Your task to perform on an android device: open app "Indeed Job Search" (install if not already installed), go to login, and select forgot password Image 0: 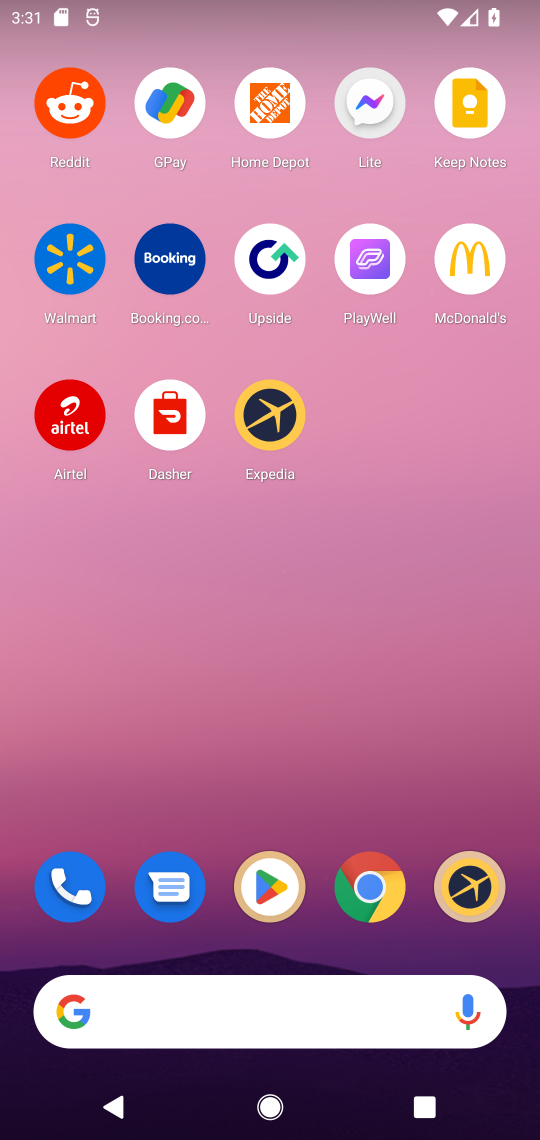
Step 0: click (268, 898)
Your task to perform on an android device: open app "Indeed Job Search" (install if not already installed), go to login, and select forgot password Image 1: 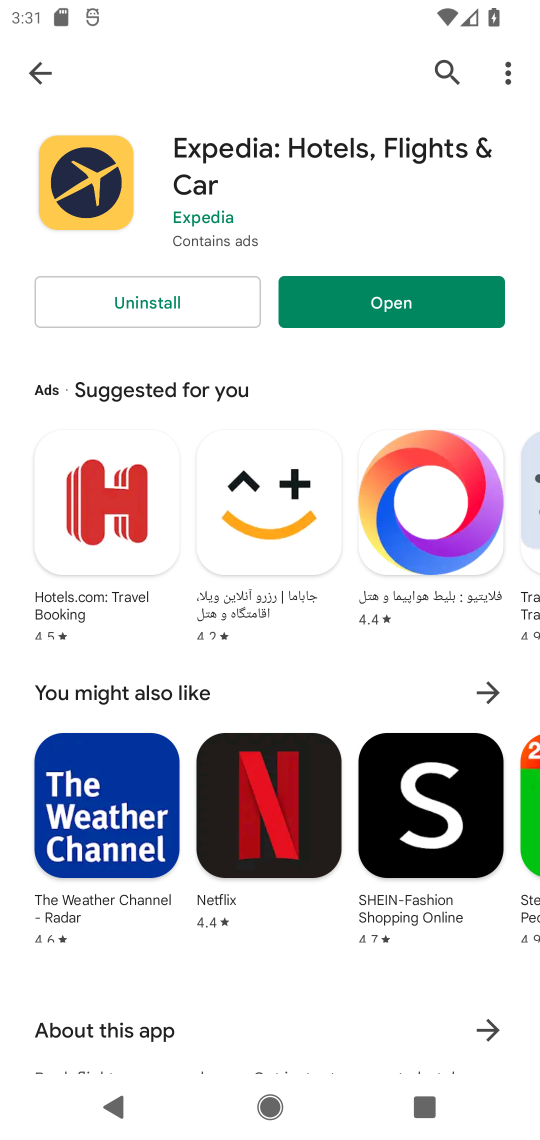
Step 1: click (35, 78)
Your task to perform on an android device: open app "Indeed Job Search" (install if not already installed), go to login, and select forgot password Image 2: 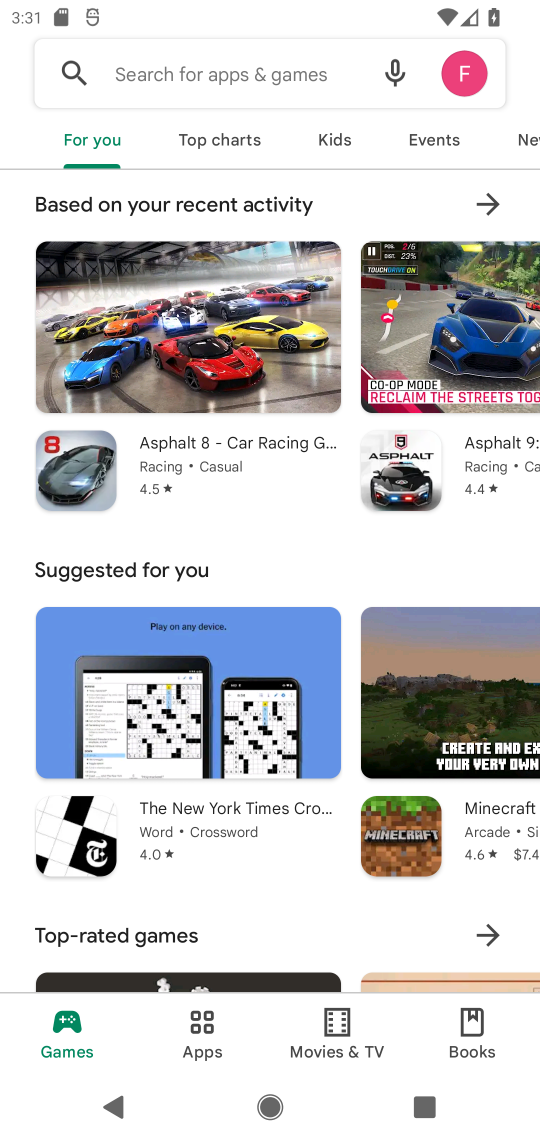
Step 2: click (219, 64)
Your task to perform on an android device: open app "Indeed Job Search" (install if not already installed), go to login, and select forgot password Image 3: 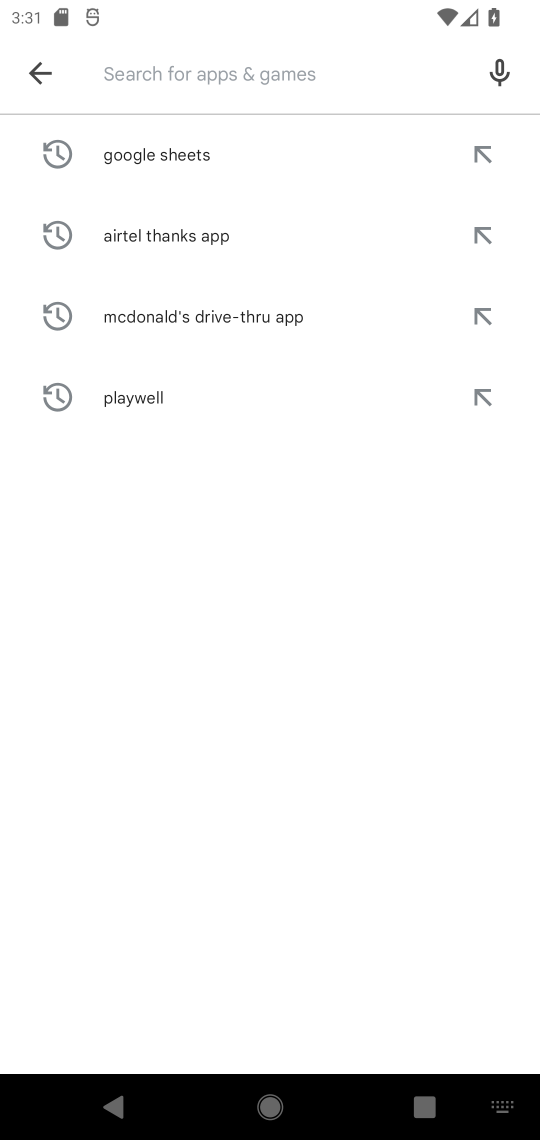
Step 3: type "Indeed Job Search"
Your task to perform on an android device: open app "Indeed Job Search" (install if not already installed), go to login, and select forgot password Image 4: 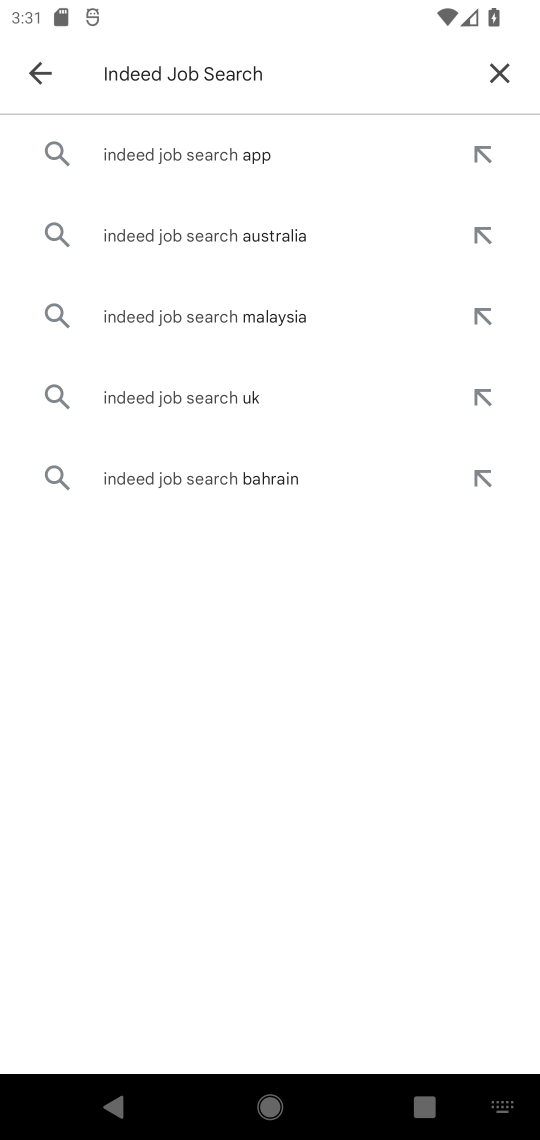
Step 4: click (218, 148)
Your task to perform on an android device: open app "Indeed Job Search" (install if not already installed), go to login, and select forgot password Image 5: 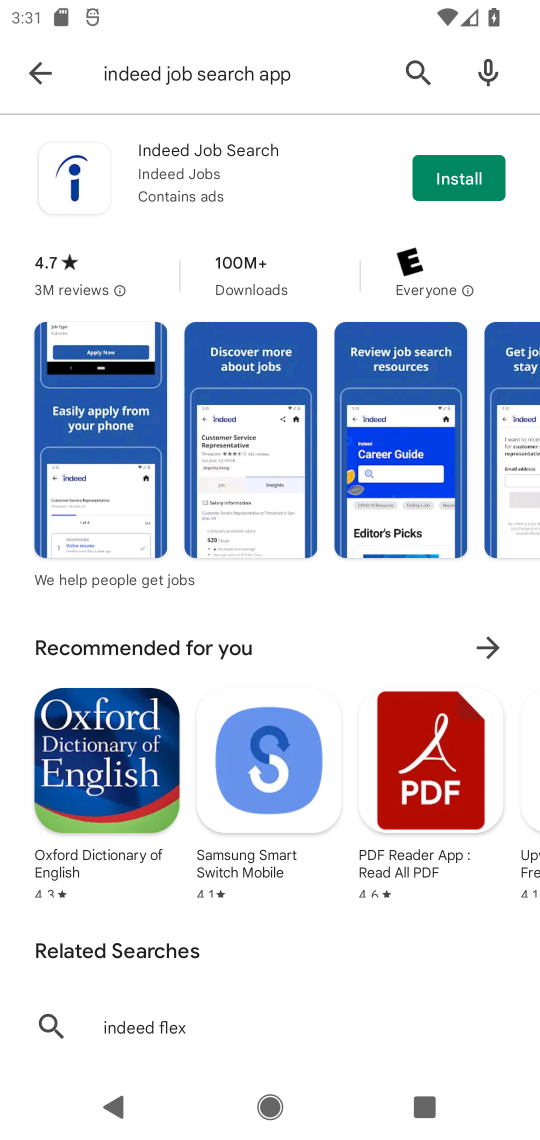
Step 5: click (466, 181)
Your task to perform on an android device: open app "Indeed Job Search" (install if not already installed), go to login, and select forgot password Image 6: 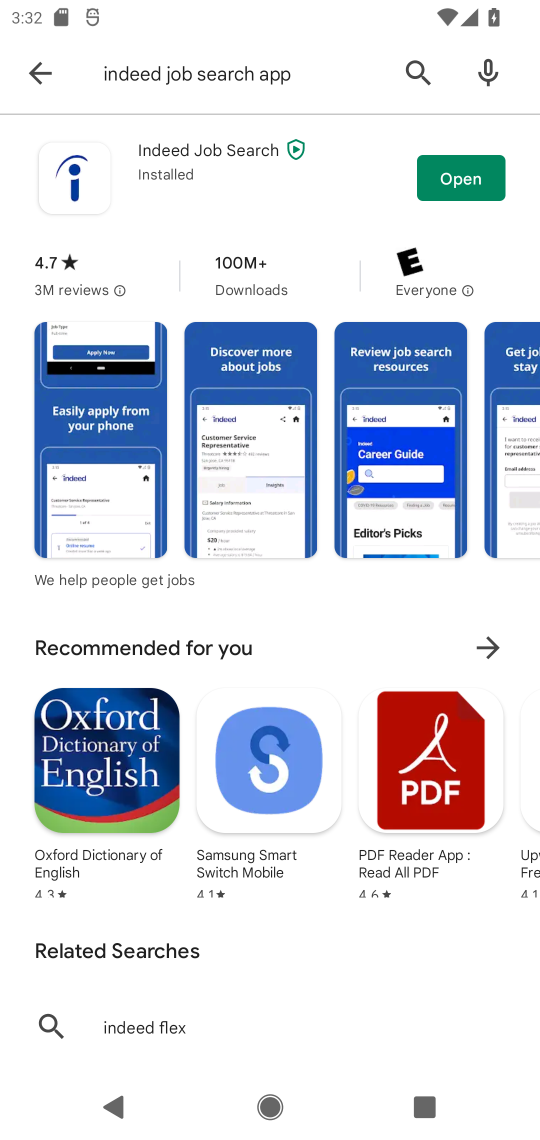
Step 6: click (455, 183)
Your task to perform on an android device: open app "Indeed Job Search" (install if not already installed), go to login, and select forgot password Image 7: 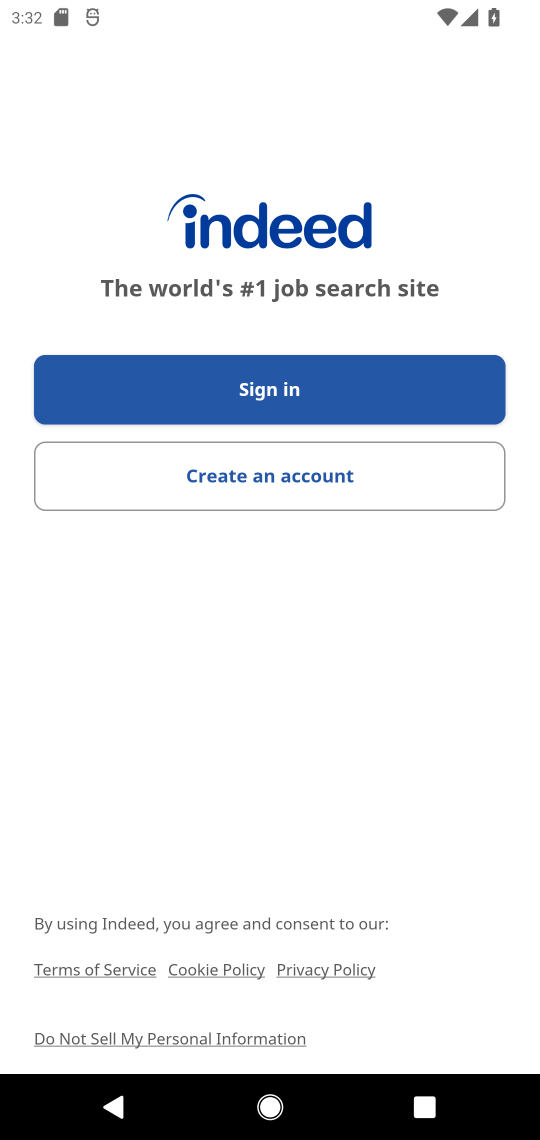
Step 7: task complete